Your task to perform on an android device: Show me popular games on the Play Store Image 0: 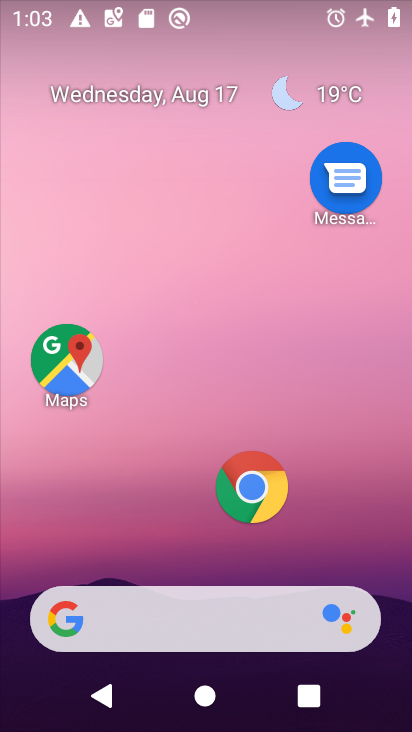
Step 0: drag from (153, 532) to (231, 31)
Your task to perform on an android device: Show me popular games on the Play Store Image 1: 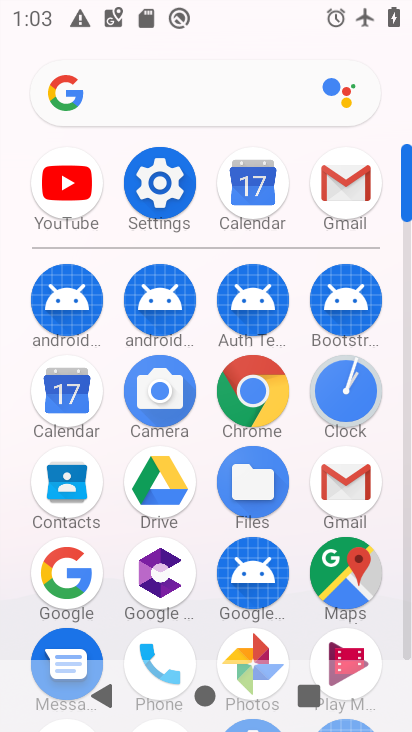
Step 1: drag from (209, 616) to (260, 234)
Your task to perform on an android device: Show me popular games on the Play Store Image 2: 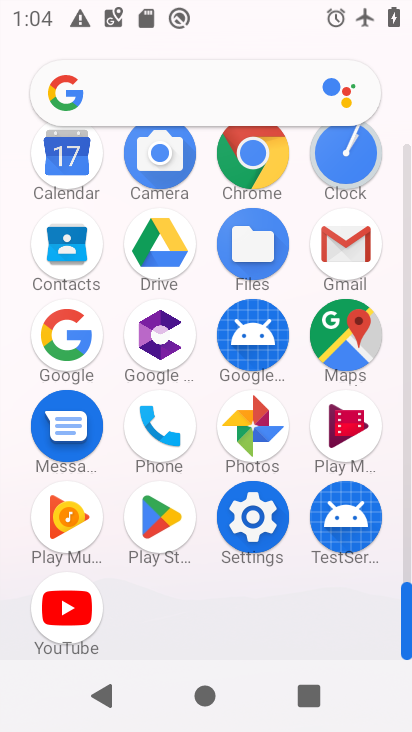
Step 2: click (161, 522)
Your task to perform on an android device: Show me popular games on the Play Store Image 3: 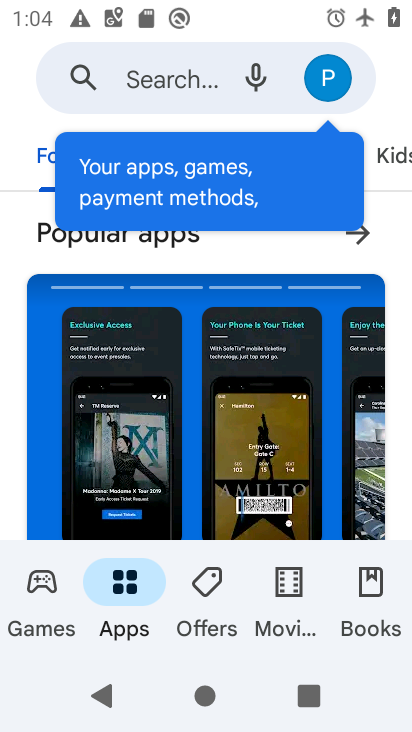
Step 3: click (37, 595)
Your task to perform on an android device: Show me popular games on the Play Store Image 4: 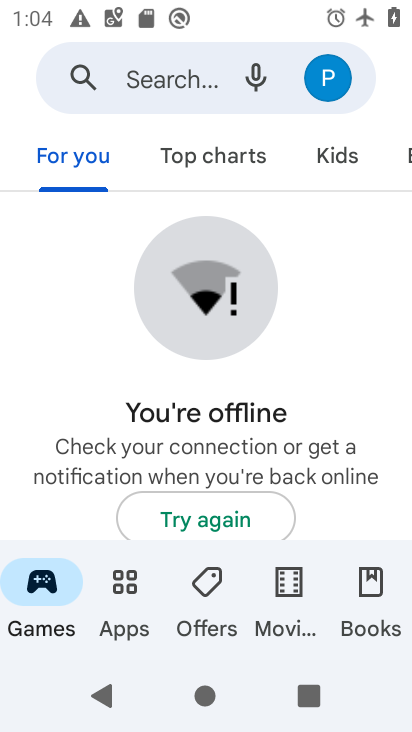
Step 4: drag from (371, 13) to (287, 578)
Your task to perform on an android device: Show me popular games on the Play Store Image 5: 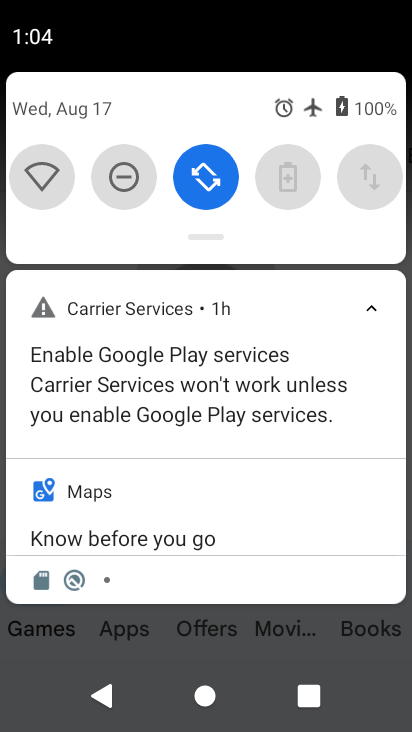
Step 5: drag from (208, 228) to (173, 698)
Your task to perform on an android device: Show me popular games on the Play Store Image 6: 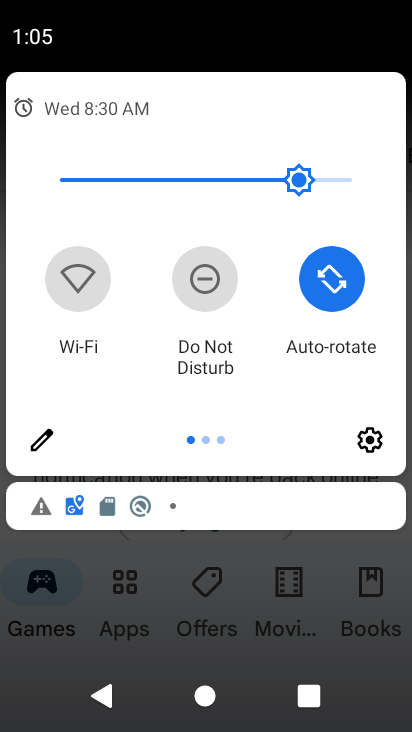
Step 6: drag from (349, 282) to (0, 277)
Your task to perform on an android device: Show me popular games on the Play Store Image 7: 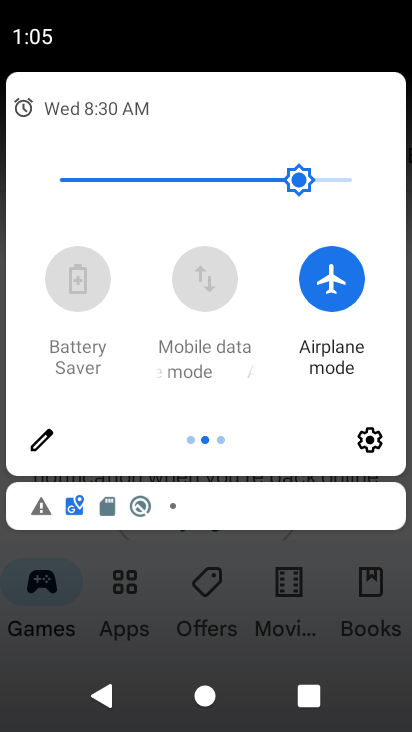
Step 7: click (329, 274)
Your task to perform on an android device: Show me popular games on the Play Store Image 8: 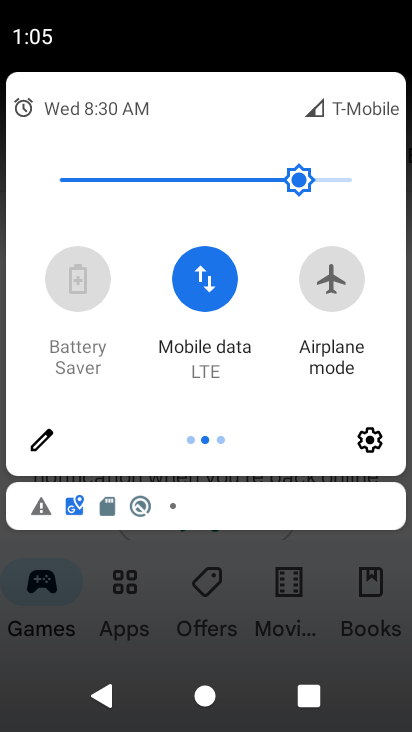
Step 8: click (190, 552)
Your task to perform on an android device: Show me popular games on the Play Store Image 9: 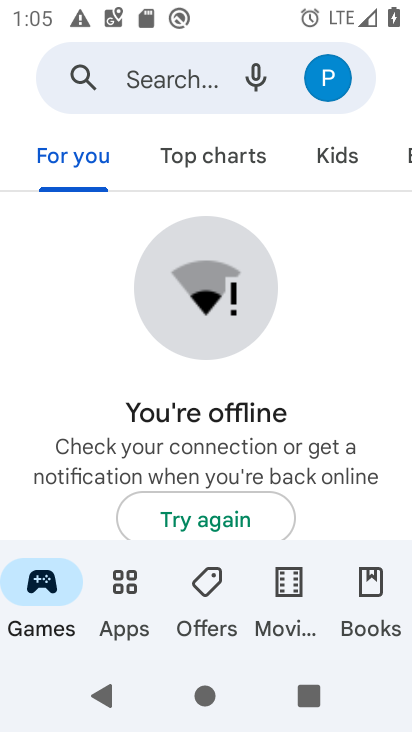
Step 9: click (241, 502)
Your task to perform on an android device: Show me popular games on the Play Store Image 10: 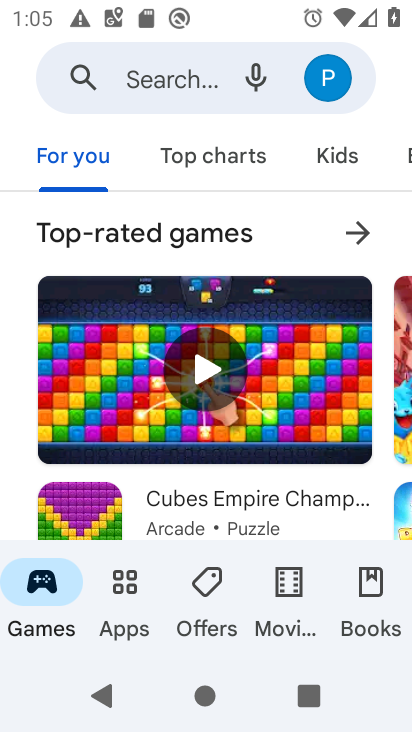
Step 10: drag from (11, 476) to (44, 95)
Your task to perform on an android device: Show me popular games on the Play Store Image 11: 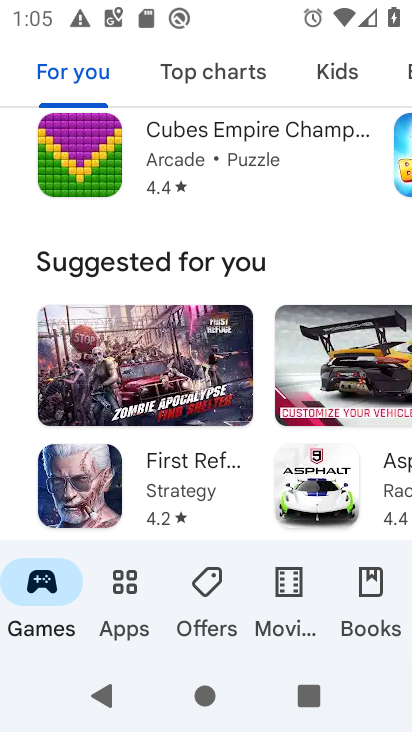
Step 11: drag from (20, 535) to (42, 126)
Your task to perform on an android device: Show me popular games on the Play Store Image 12: 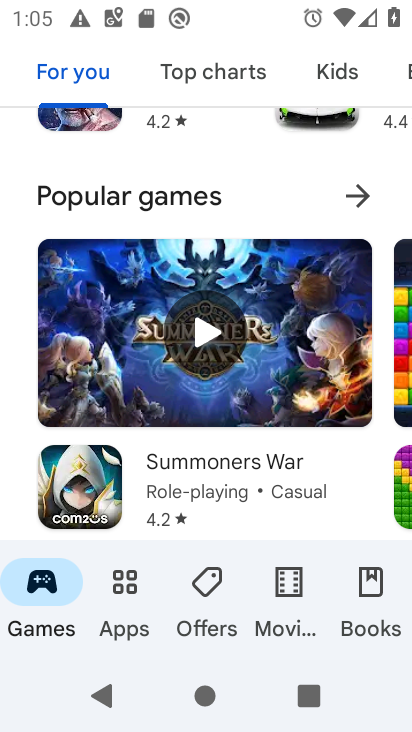
Step 12: click (354, 191)
Your task to perform on an android device: Show me popular games on the Play Store Image 13: 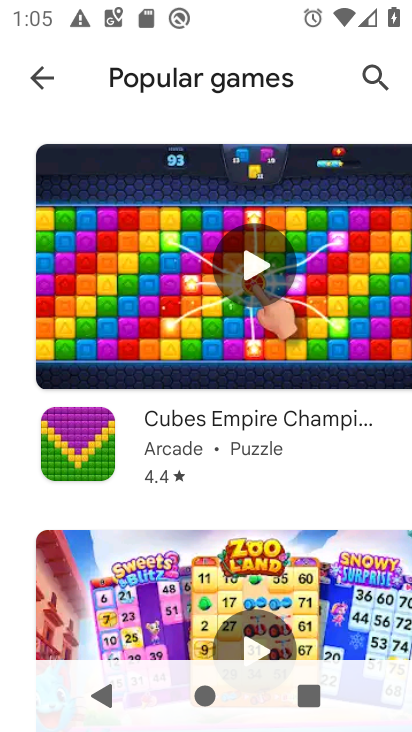
Step 13: task complete